Your task to perform on an android device: Show me popular videos on Youtube Image 0: 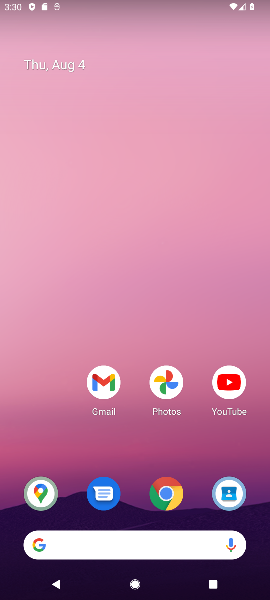
Step 0: drag from (153, 529) to (153, 164)
Your task to perform on an android device: Show me popular videos on Youtube Image 1: 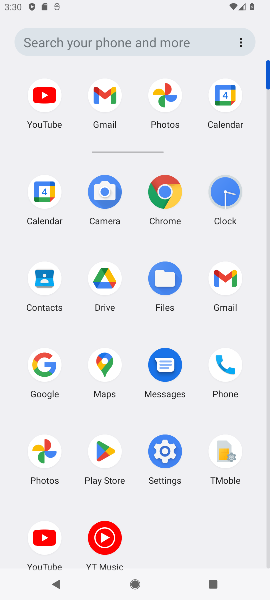
Step 1: click (39, 546)
Your task to perform on an android device: Show me popular videos on Youtube Image 2: 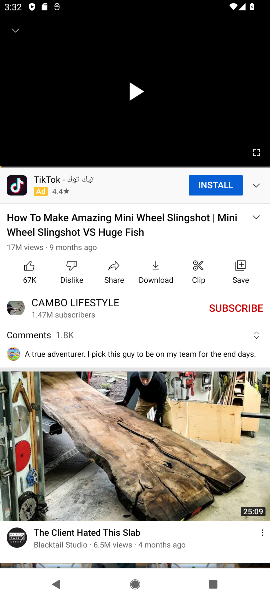
Step 2: task complete